Your task to perform on an android device: show emergency info Image 0: 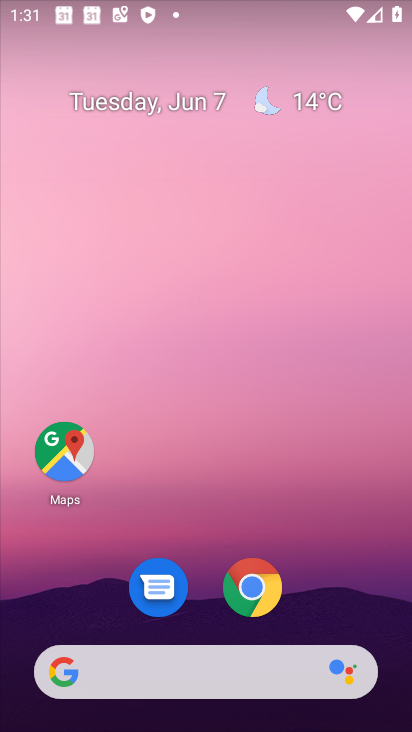
Step 0: drag from (300, 605) to (309, 83)
Your task to perform on an android device: show emergency info Image 1: 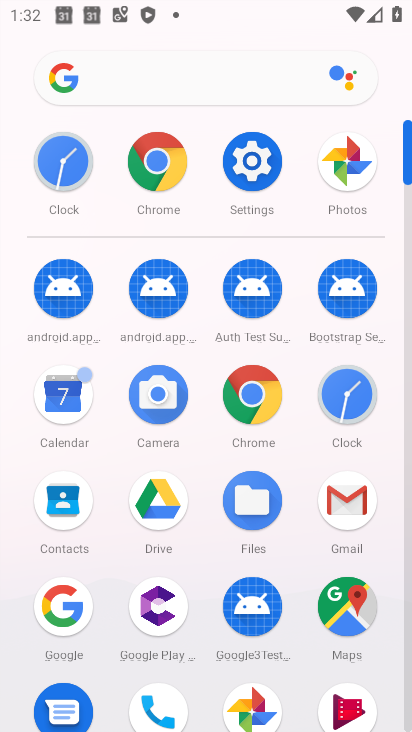
Step 1: click (268, 167)
Your task to perform on an android device: show emergency info Image 2: 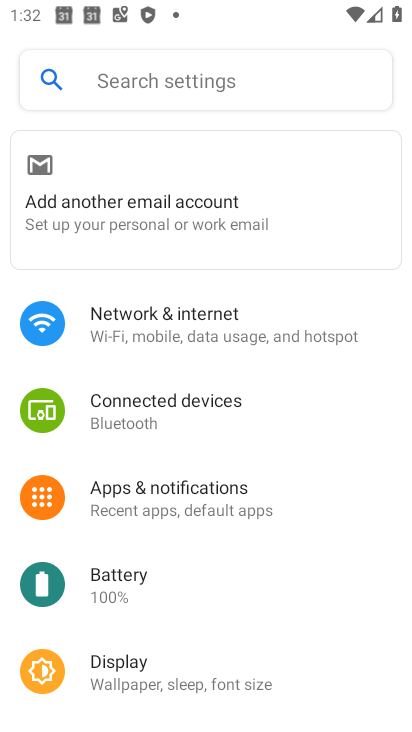
Step 2: drag from (217, 531) to (262, 193)
Your task to perform on an android device: show emergency info Image 3: 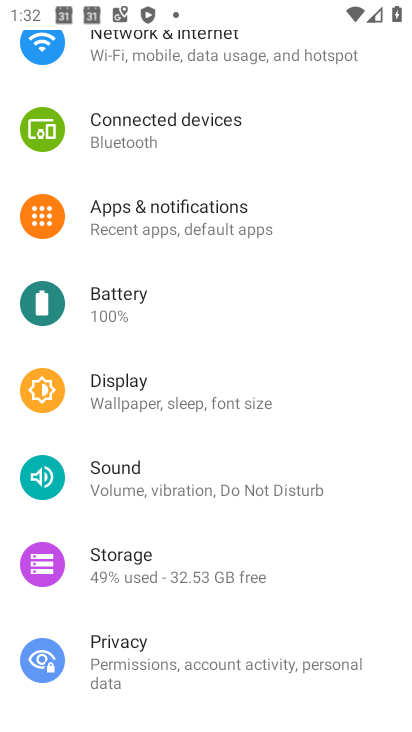
Step 3: drag from (230, 512) to (278, 138)
Your task to perform on an android device: show emergency info Image 4: 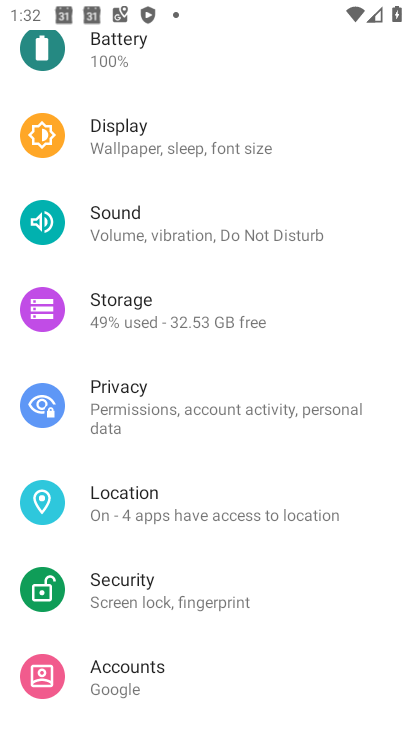
Step 4: drag from (205, 539) to (275, 182)
Your task to perform on an android device: show emergency info Image 5: 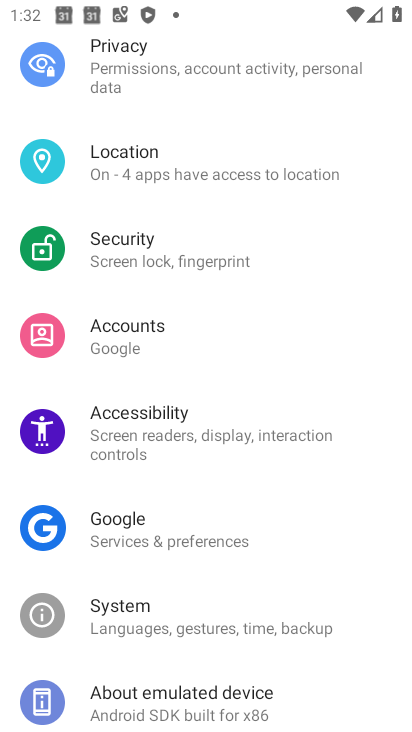
Step 5: drag from (247, 544) to (208, 143)
Your task to perform on an android device: show emergency info Image 6: 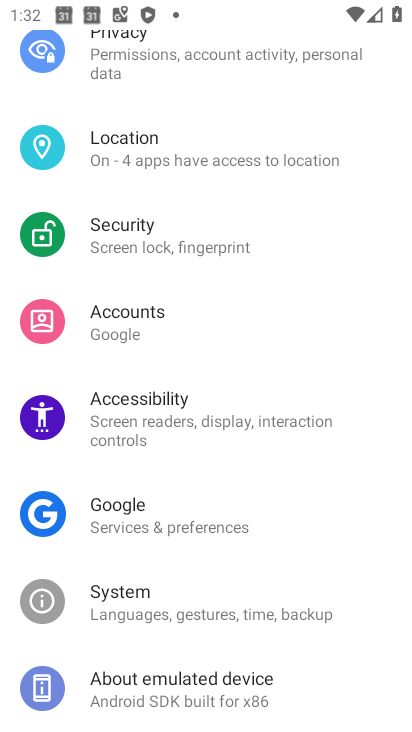
Step 6: click (237, 696)
Your task to perform on an android device: show emergency info Image 7: 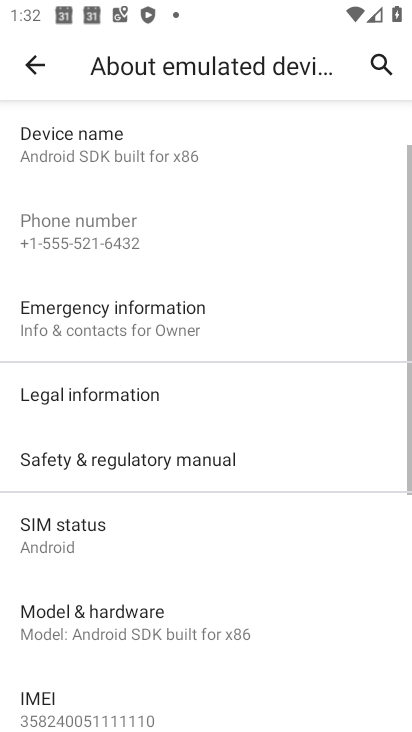
Step 7: click (210, 308)
Your task to perform on an android device: show emergency info Image 8: 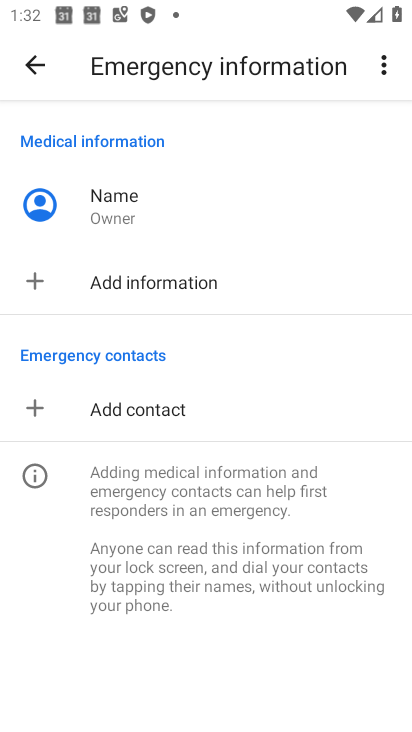
Step 8: task complete